Your task to perform on an android device: Show me recent news Image 0: 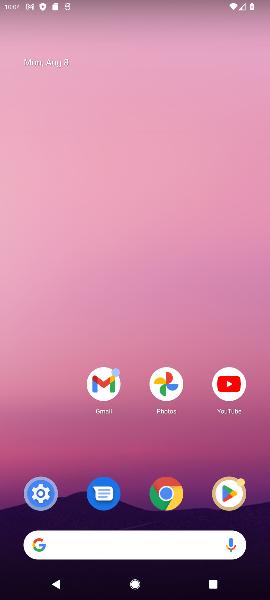
Step 0: drag from (143, 537) to (261, 0)
Your task to perform on an android device: Show me recent news Image 1: 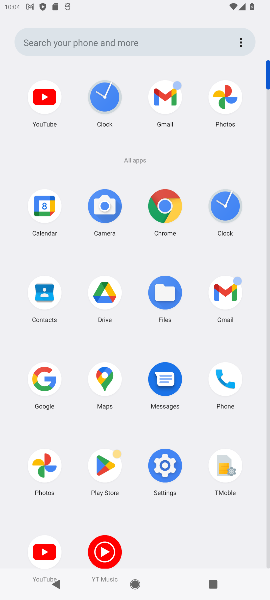
Step 1: click (54, 385)
Your task to perform on an android device: Show me recent news Image 2: 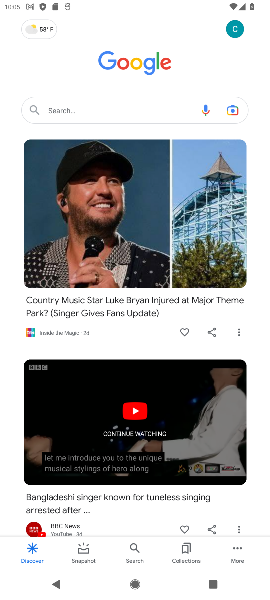
Step 2: click (73, 114)
Your task to perform on an android device: Show me recent news Image 3: 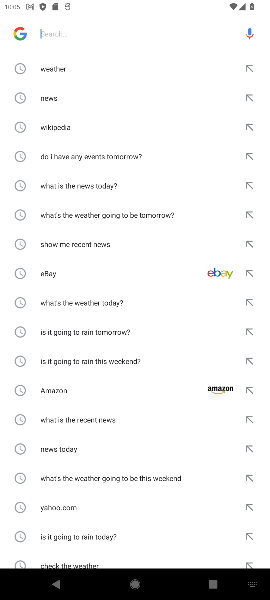
Step 3: click (73, 98)
Your task to perform on an android device: Show me recent news Image 4: 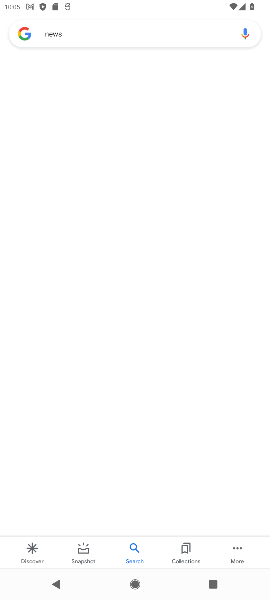
Step 4: click (74, 98)
Your task to perform on an android device: Show me recent news Image 5: 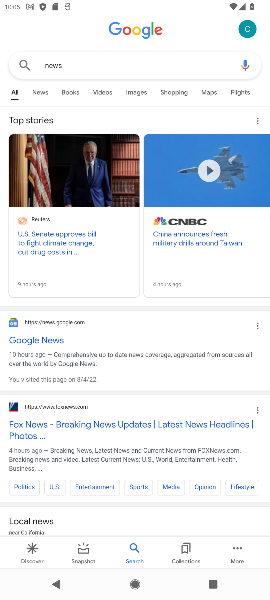
Step 5: task complete